Your task to perform on an android device: Go to notification settings Image 0: 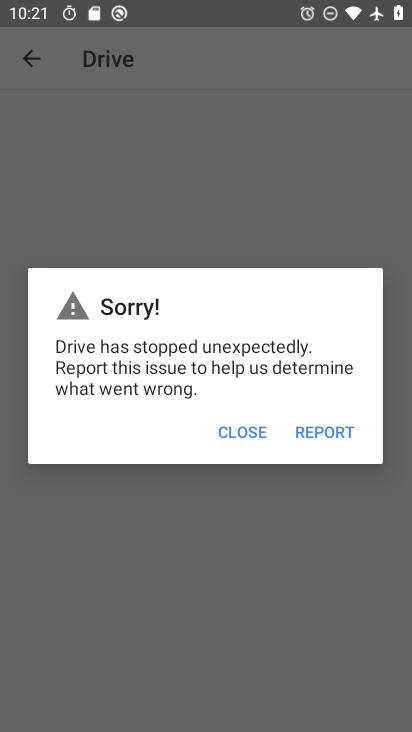
Step 0: press home button
Your task to perform on an android device: Go to notification settings Image 1: 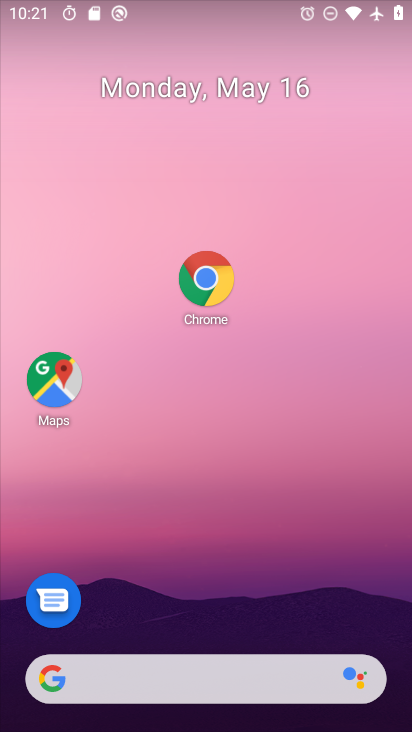
Step 1: drag from (160, 676) to (323, 150)
Your task to perform on an android device: Go to notification settings Image 2: 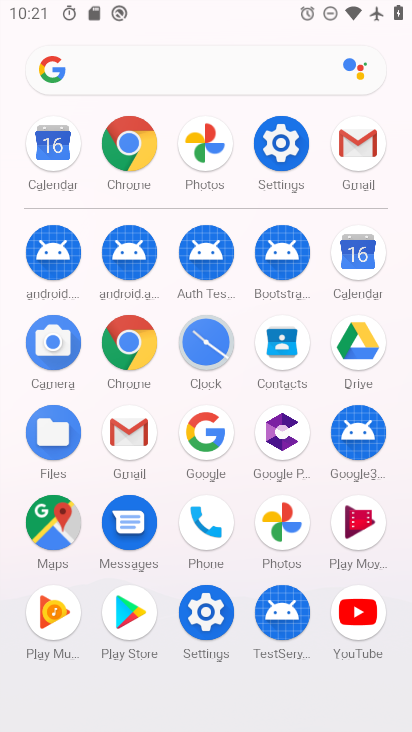
Step 2: click (283, 151)
Your task to perform on an android device: Go to notification settings Image 3: 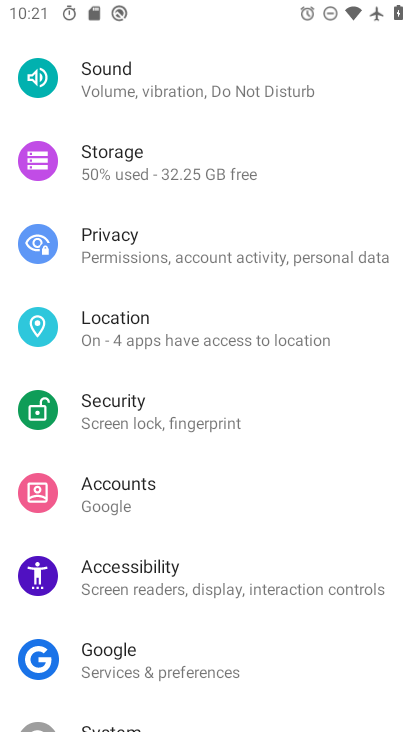
Step 3: drag from (271, 189) to (254, 673)
Your task to perform on an android device: Go to notification settings Image 4: 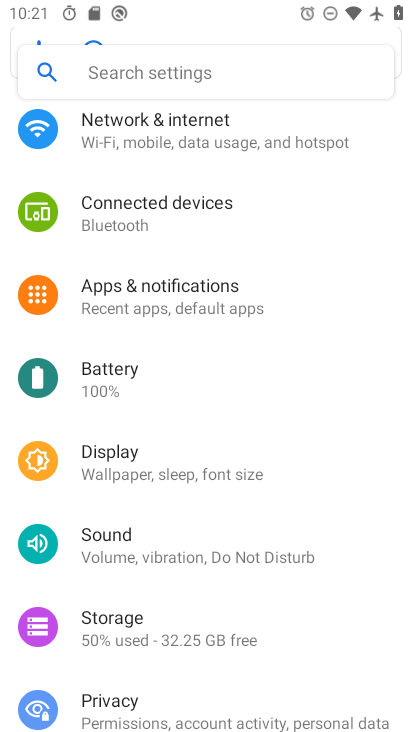
Step 4: click (228, 290)
Your task to perform on an android device: Go to notification settings Image 5: 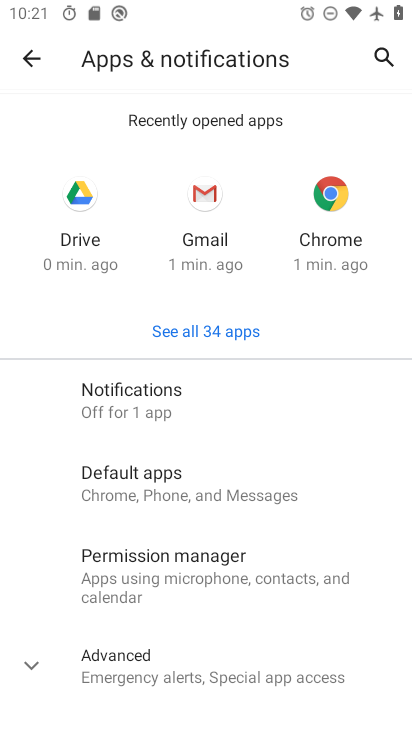
Step 5: click (167, 408)
Your task to perform on an android device: Go to notification settings Image 6: 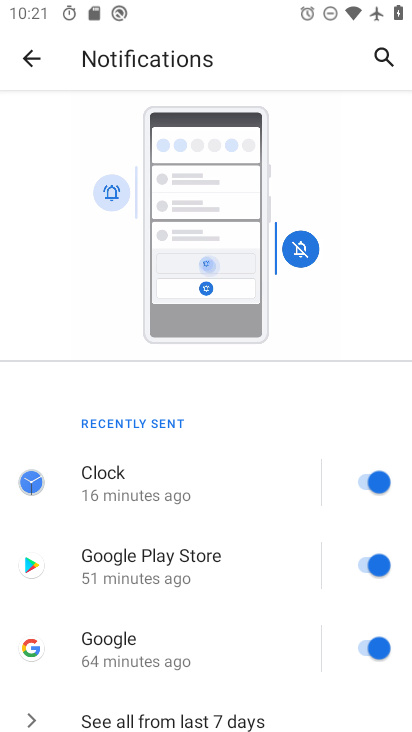
Step 6: task complete